Your task to perform on an android device: check android version Image 0: 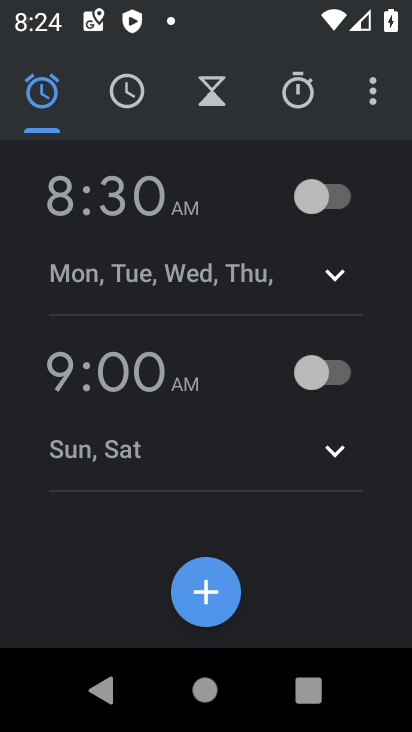
Step 0: press home button
Your task to perform on an android device: check android version Image 1: 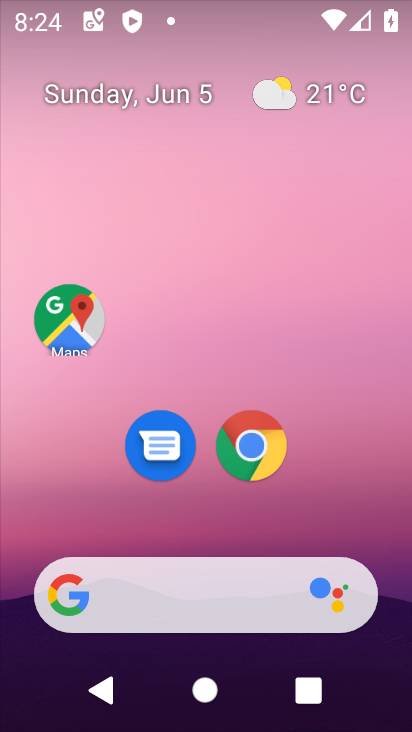
Step 1: drag from (333, 503) to (329, 3)
Your task to perform on an android device: check android version Image 2: 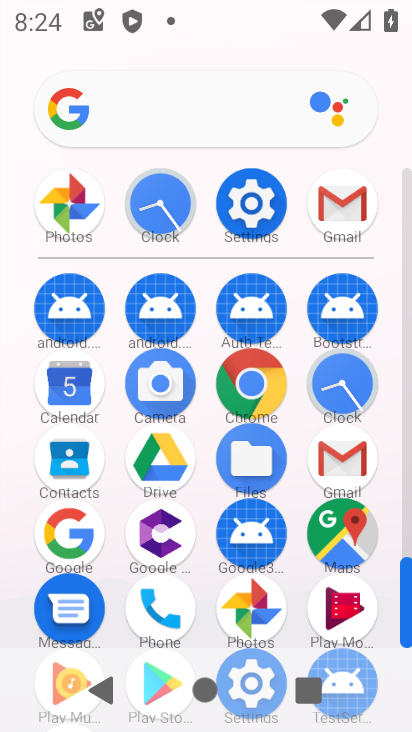
Step 2: click (249, 199)
Your task to perform on an android device: check android version Image 3: 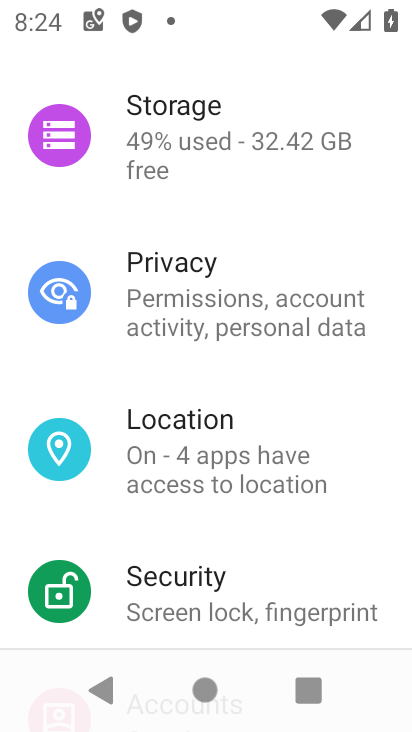
Step 3: drag from (95, 630) to (168, 5)
Your task to perform on an android device: check android version Image 4: 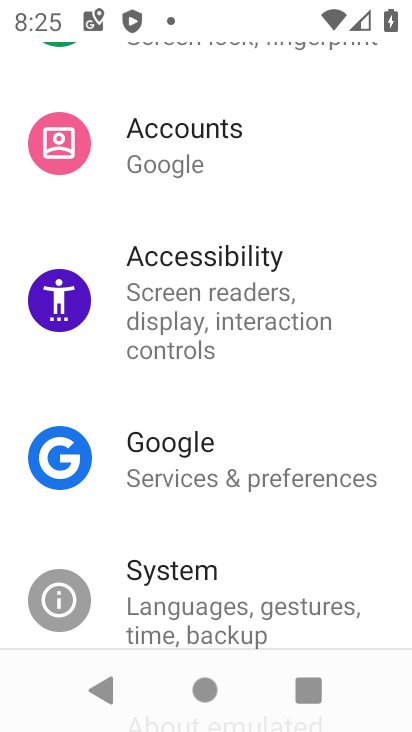
Step 4: drag from (70, 532) to (155, 208)
Your task to perform on an android device: check android version Image 5: 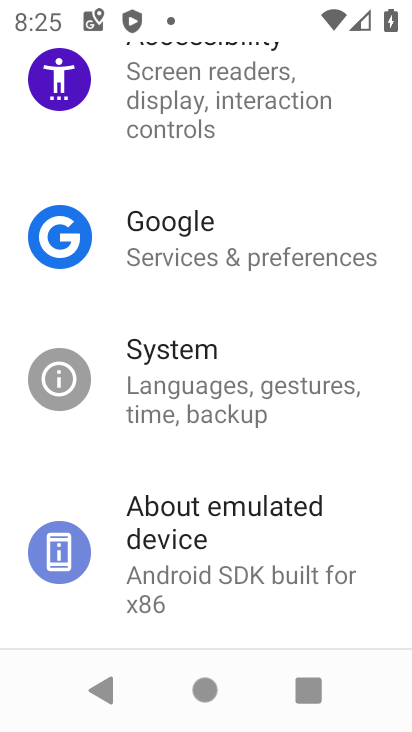
Step 5: click (159, 520)
Your task to perform on an android device: check android version Image 6: 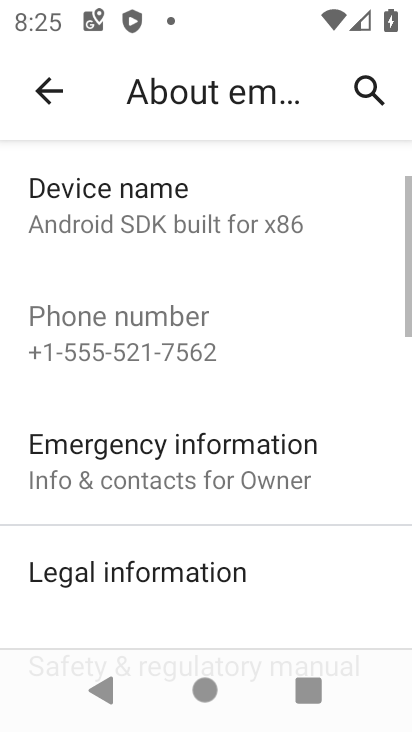
Step 6: task complete